Your task to perform on an android device: Go to location settings Image 0: 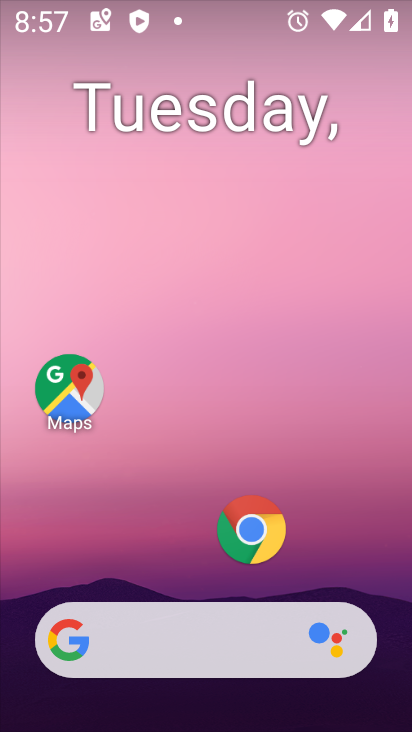
Step 0: press home button
Your task to perform on an android device: Go to location settings Image 1: 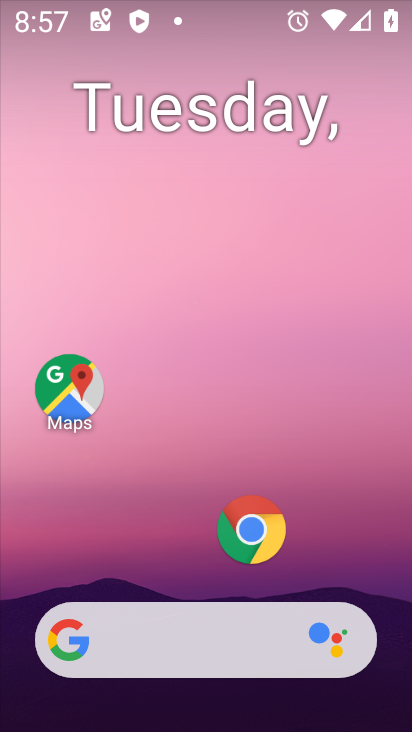
Step 1: drag from (188, 572) to (175, 58)
Your task to perform on an android device: Go to location settings Image 2: 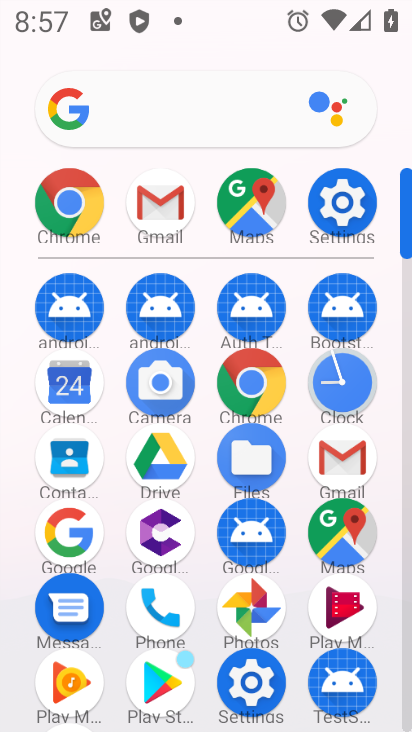
Step 2: click (342, 196)
Your task to perform on an android device: Go to location settings Image 3: 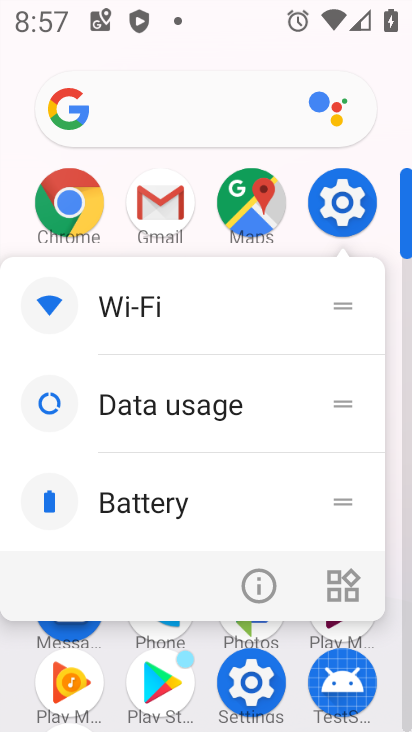
Step 3: click (343, 196)
Your task to perform on an android device: Go to location settings Image 4: 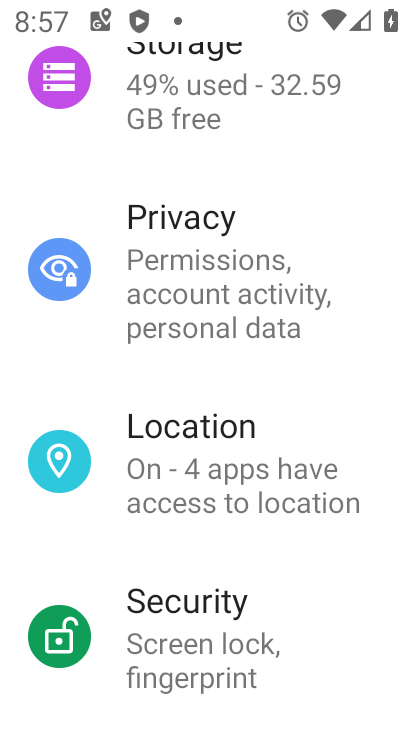
Step 4: click (279, 432)
Your task to perform on an android device: Go to location settings Image 5: 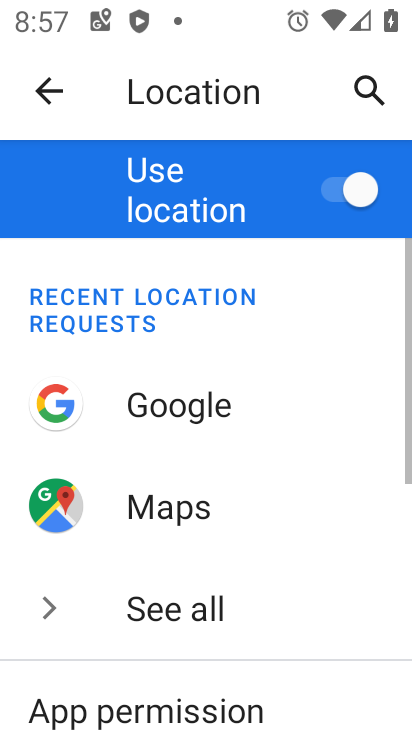
Step 5: drag from (243, 655) to (243, 163)
Your task to perform on an android device: Go to location settings Image 6: 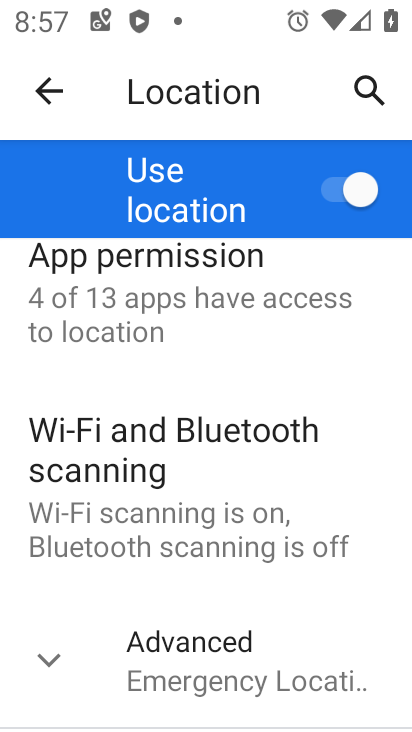
Step 6: click (48, 647)
Your task to perform on an android device: Go to location settings Image 7: 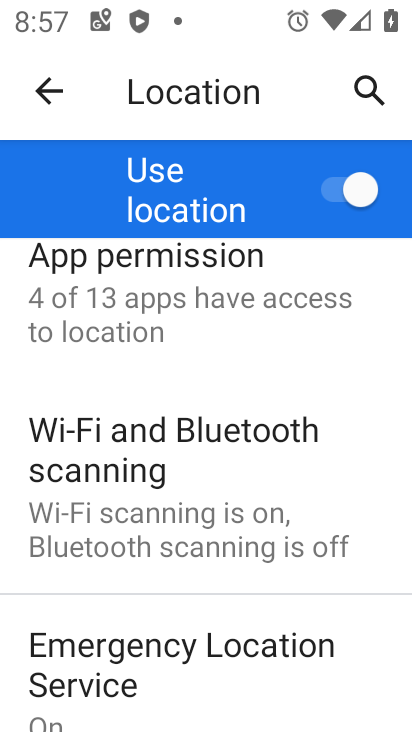
Step 7: task complete